Your task to perform on an android device: Go to location settings Image 0: 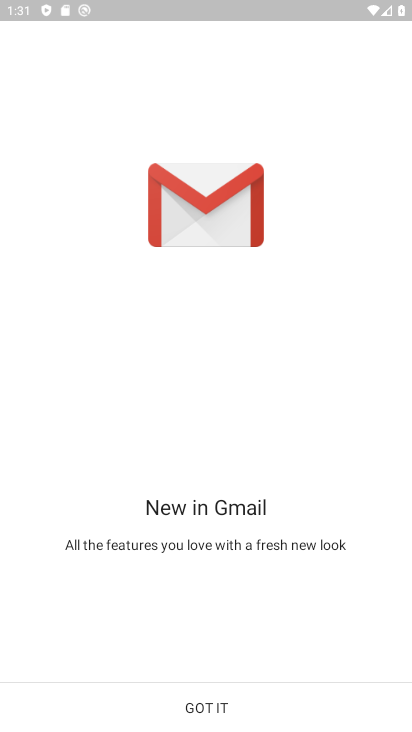
Step 0: click (197, 714)
Your task to perform on an android device: Go to location settings Image 1: 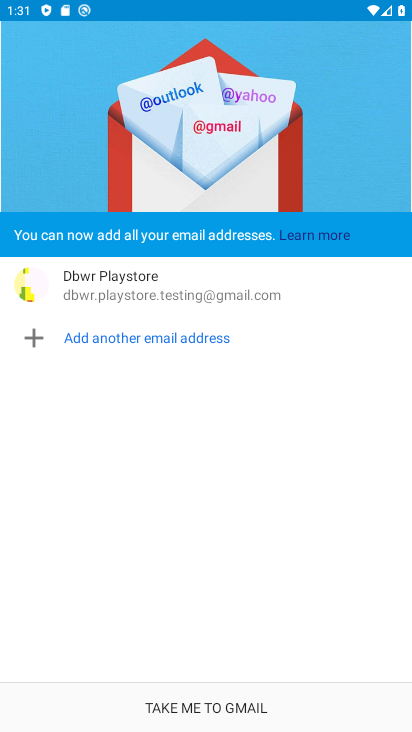
Step 1: click (197, 714)
Your task to perform on an android device: Go to location settings Image 2: 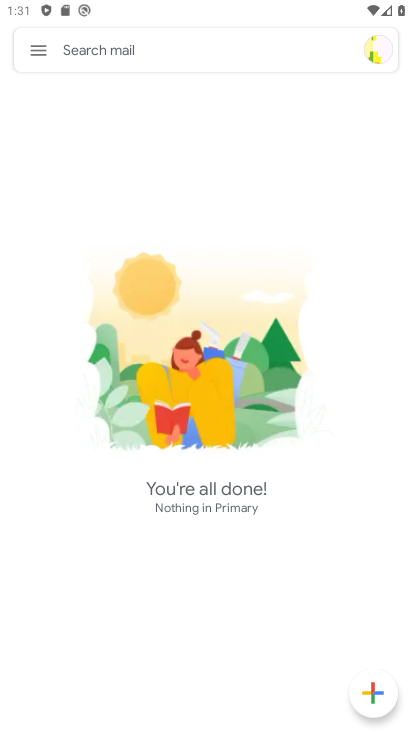
Step 2: press home button
Your task to perform on an android device: Go to location settings Image 3: 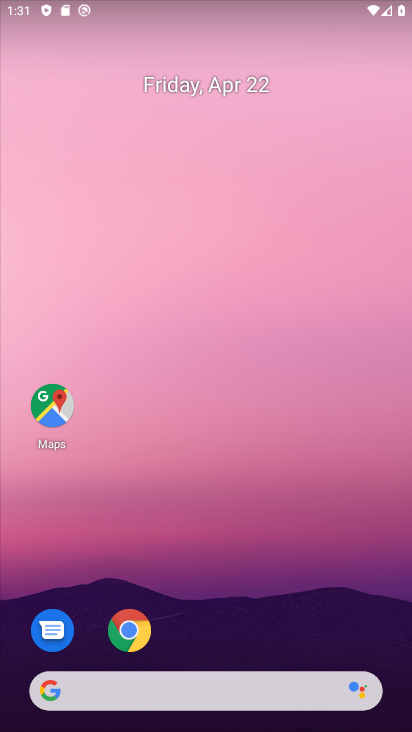
Step 3: drag from (223, 609) to (269, 9)
Your task to perform on an android device: Go to location settings Image 4: 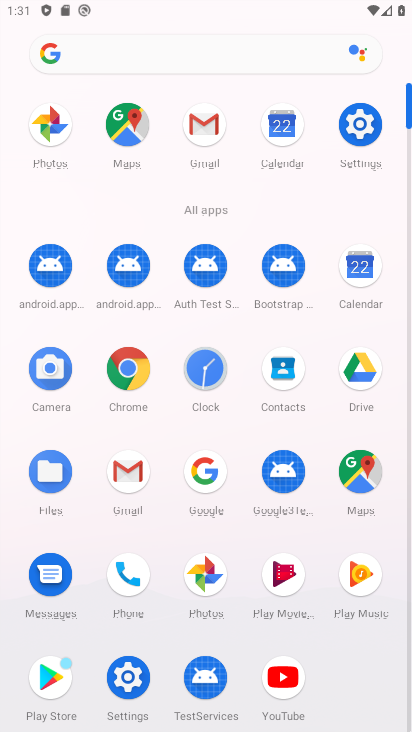
Step 4: click (371, 136)
Your task to perform on an android device: Go to location settings Image 5: 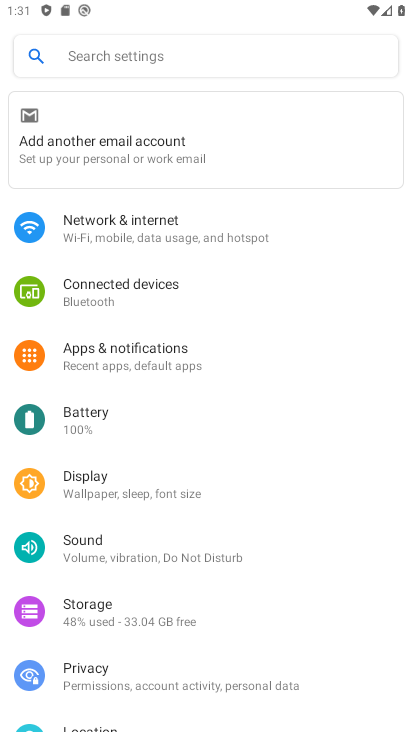
Step 5: drag from (164, 600) to (173, 461)
Your task to perform on an android device: Go to location settings Image 6: 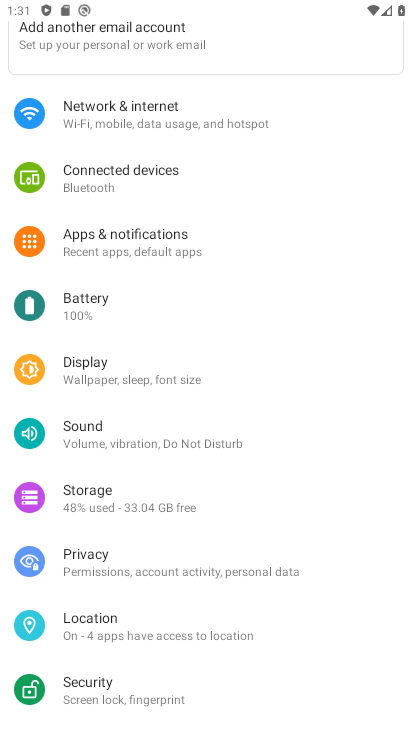
Step 6: click (150, 614)
Your task to perform on an android device: Go to location settings Image 7: 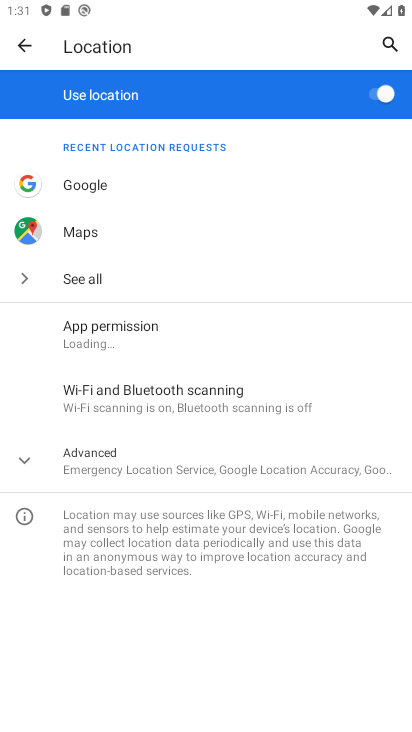
Step 7: task complete